Your task to perform on an android device: manage bookmarks in the chrome app Image 0: 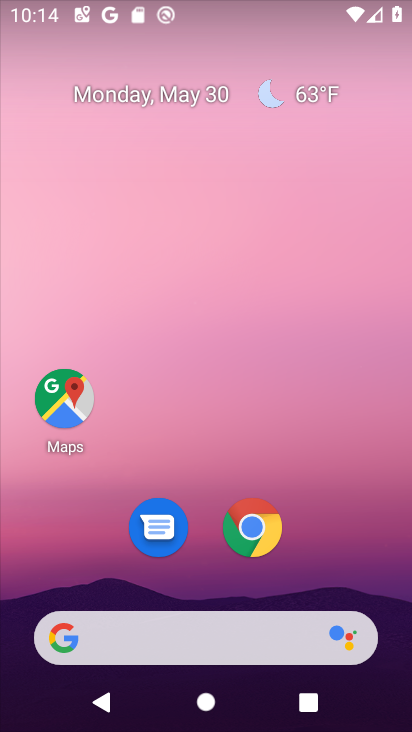
Step 0: click (258, 524)
Your task to perform on an android device: manage bookmarks in the chrome app Image 1: 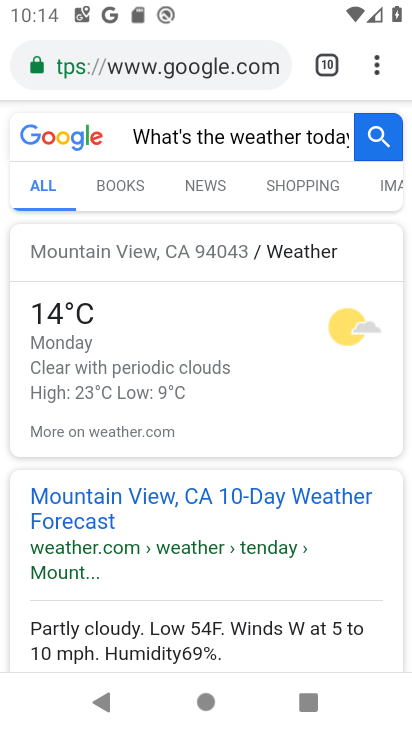
Step 1: click (379, 54)
Your task to perform on an android device: manage bookmarks in the chrome app Image 2: 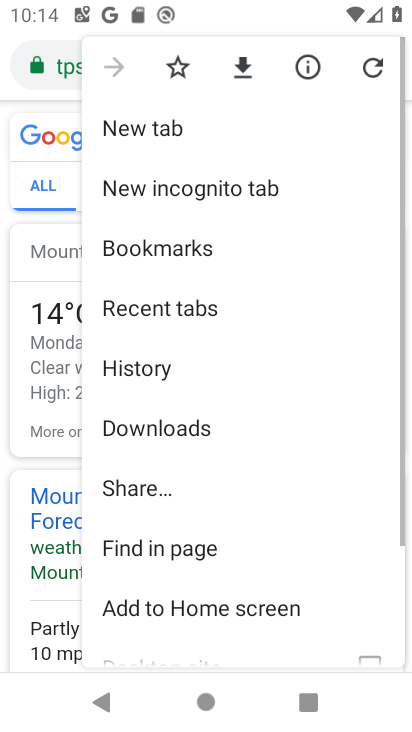
Step 2: click (167, 249)
Your task to perform on an android device: manage bookmarks in the chrome app Image 3: 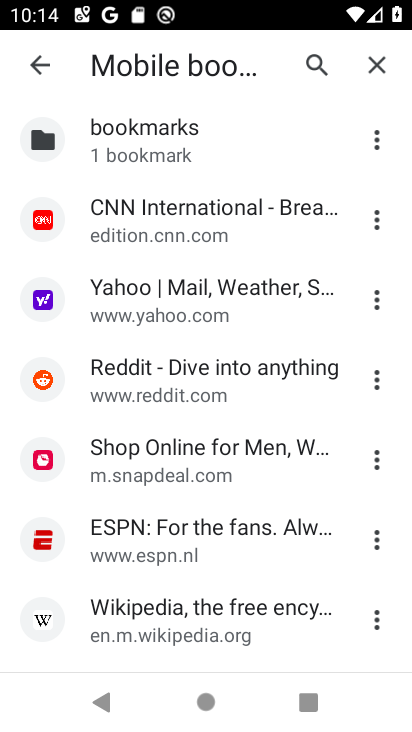
Step 3: click (164, 211)
Your task to perform on an android device: manage bookmarks in the chrome app Image 4: 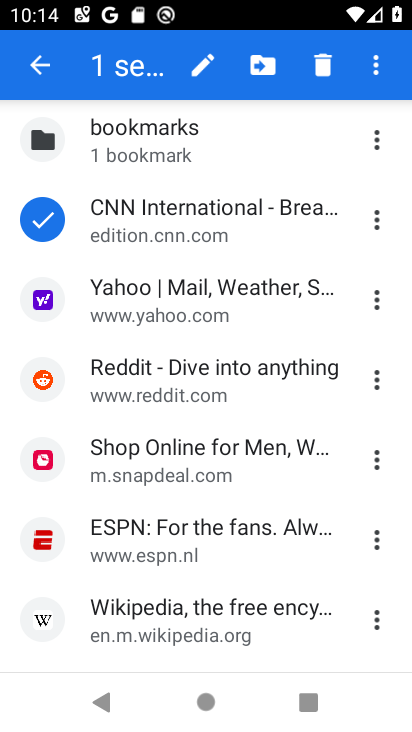
Step 4: click (268, 48)
Your task to perform on an android device: manage bookmarks in the chrome app Image 5: 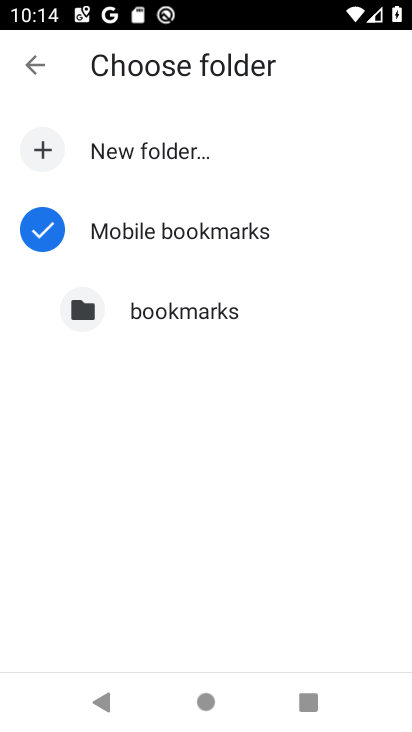
Step 5: click (169, 296)
Your task to perform on an android device: manage bookmarks in the chrome app Image 6: 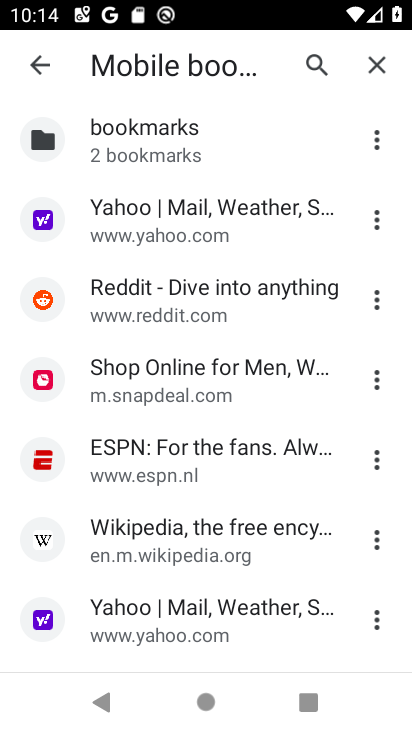
Step 6: task complete